Your task to perform on an android device: Go to internet settings Image 0: 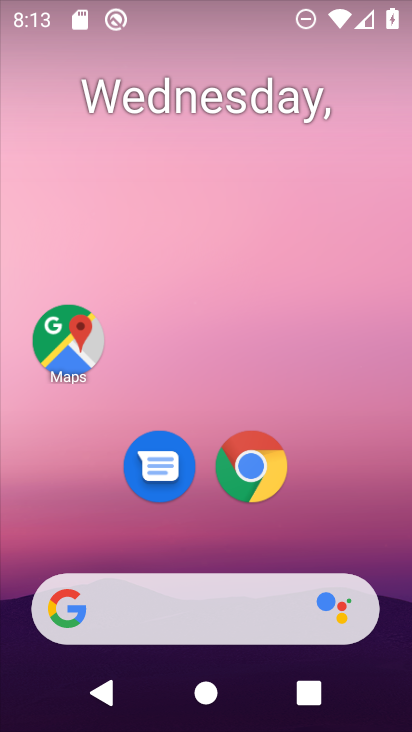
Step 0: drag from (207, 547) to (159, 18)
Your task to perform on an android device: Go to internet settings Image 1: 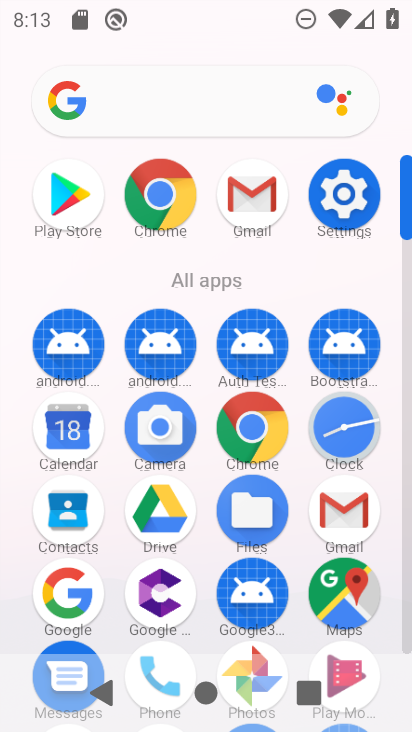
Step 1: click (353, 214)
Your task to perform on an android device: Go to internet settings Image 2: 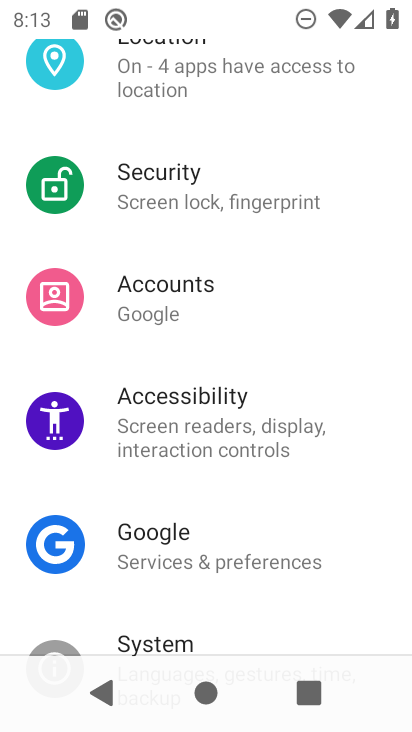
Step 2: drag from (214, 145) to (173, 601)
Your task to perform on an android device: Go to internet settings Image 3: 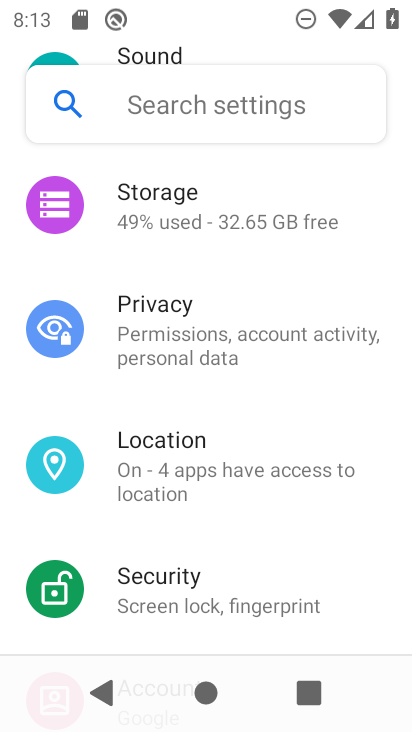
Step 3: drag from (205, 260) to (174, 611)
Your task to perform on an android device: Go to internet settings Image 4: 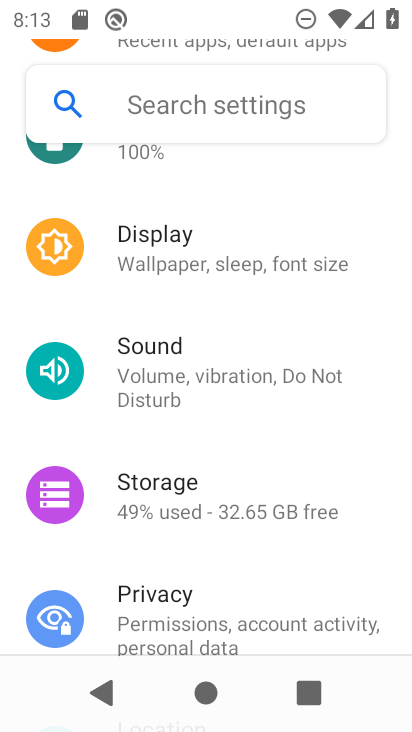
Step 4: drag from (251, 204) to (226, 648)
Your task to perform on an android device: Go to internet settings Image 5: 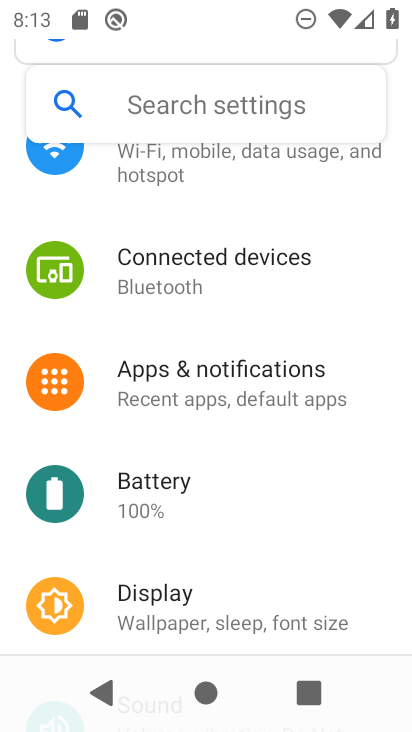
Step 5: drag from (231, 204) to (225, 727)
Your task to perform on an android device: Go to internet settings Image 6: 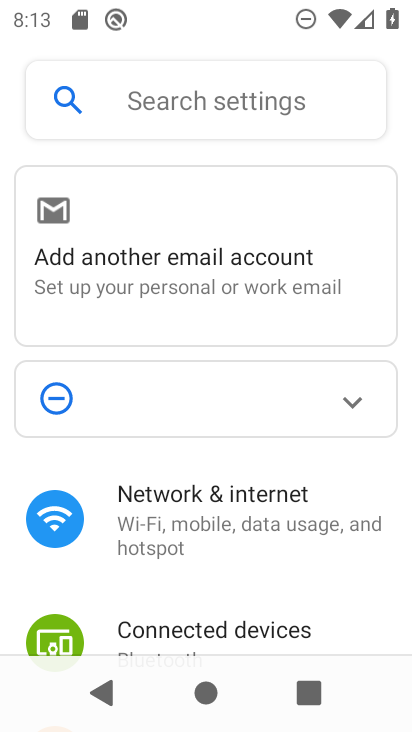
Step 6: click (210, 517)
Your task to perform on an android device: Go to internet settings Image 7: 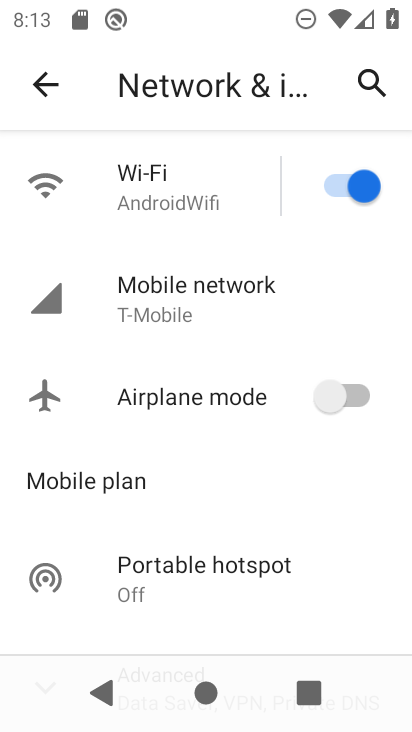
Step 7: drag from (212, 508) to (221, 352)
Your task to perform on an android device: Go to internet settings Image 8: 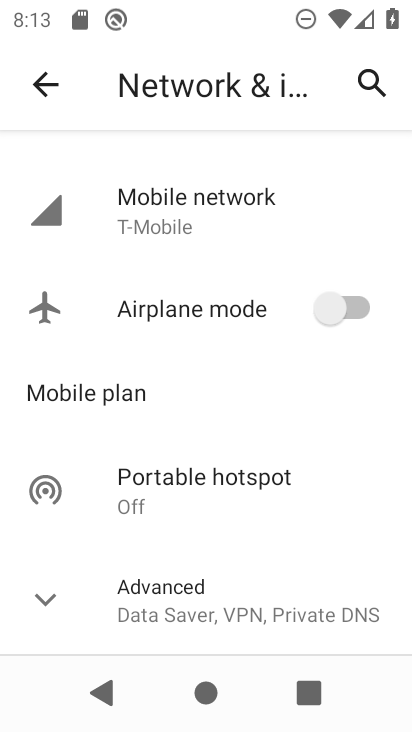
Step 8: click (223, 608)
Your task to perform on an android device: Go to internet settings Image 9: 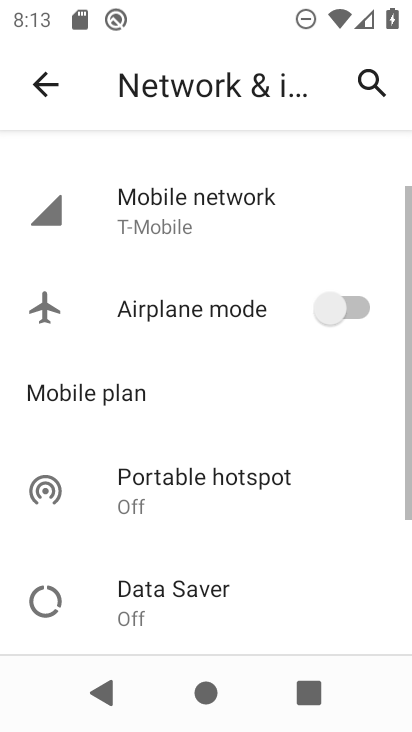
Step 9: task complete